Your task to perform on an android device: Go to network settings Image 0: 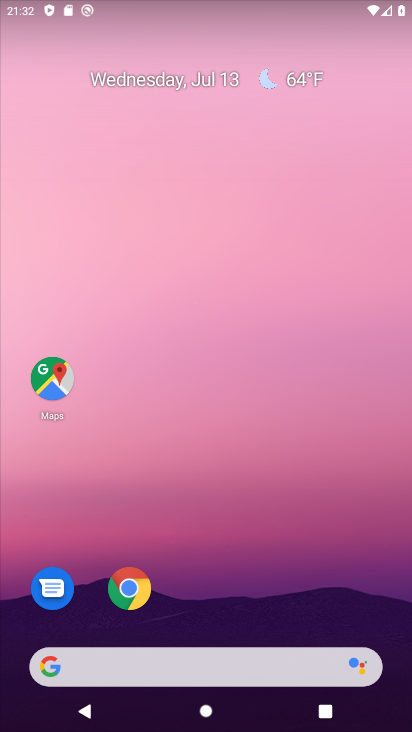
Step 0: drag from (207, 586) to (278, 38)
Your task to perform on an android device: Go to network settings Image 1: 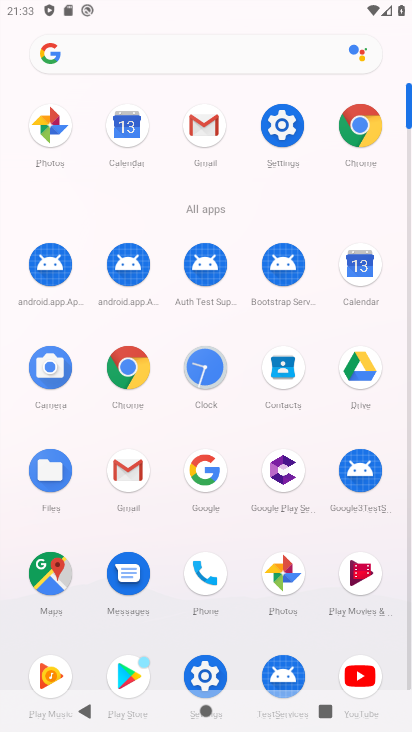
Step 1: click (292, 136)
Your task to perform on an android device: Go to network settings Image 2: 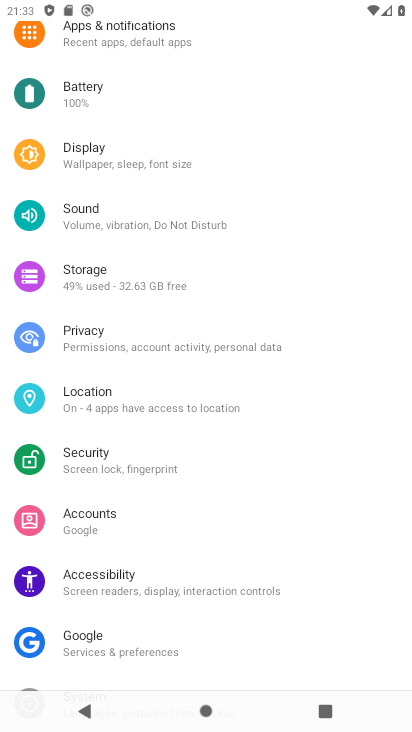
Step 2: drag from (215, 153) to (179, 622)
Your task to perform on an android device: Go to network settings Image 3: 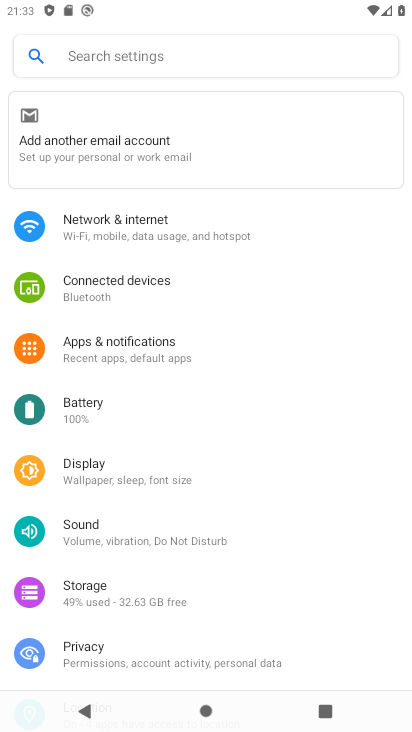
Step 3: click (145, 229)
Your task to perform on an android device: Go to network settings Image 4: 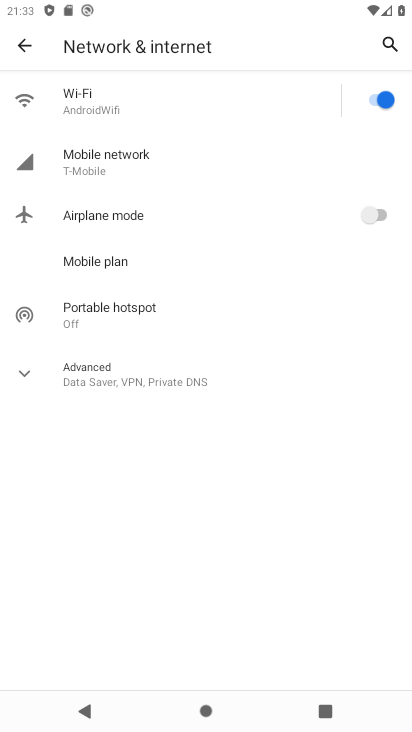
Step 4: task complete